Your task to perform on an android device: allow cookies in the chrome app Image 0: 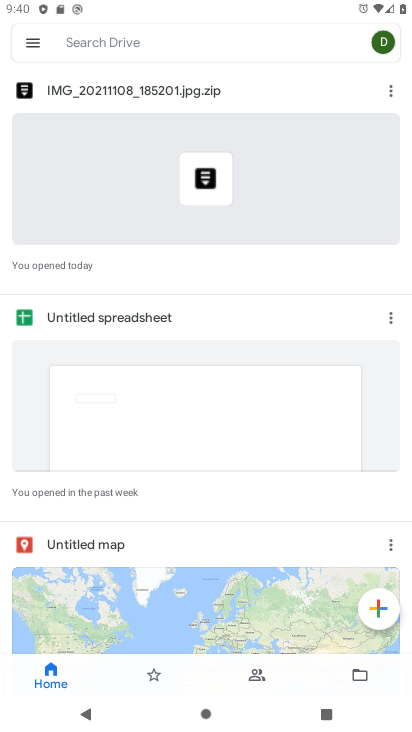
Step 0: press back button
Your task to perform on an android device: allow cookies in the chrome app Image 1: 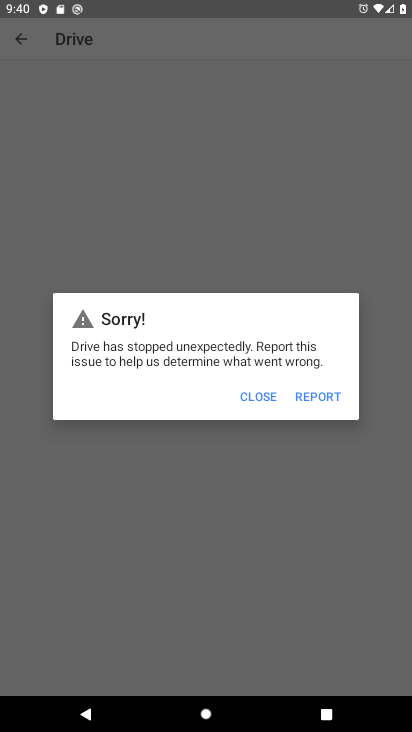
Step 1: press back button
Your task to perform on an android device: allow cookies in the chrome app Image 2: 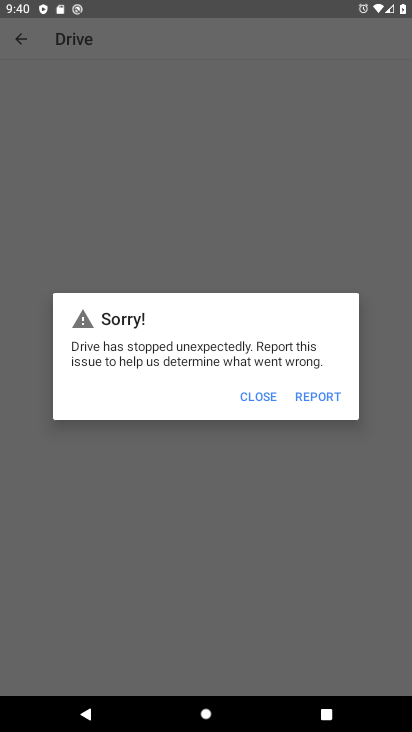
Step 2: press home button
Your task to perform on an android device: allow cookies in the chrome app Image 3: 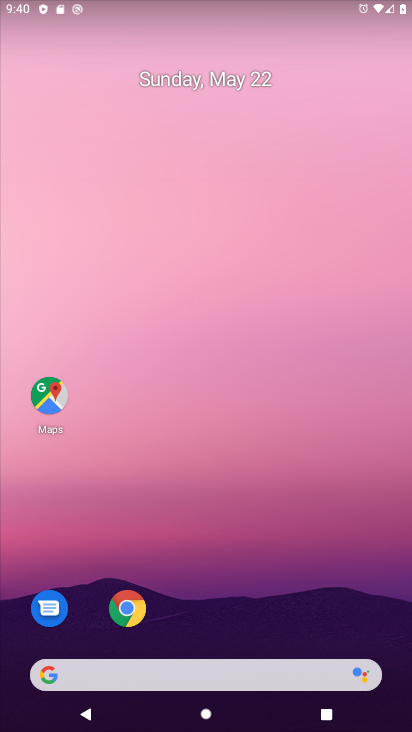
Step 3: drag from (301, 565) to (255, 13)
Your task to perform on an android device: allow cookies in the chrome app Image 4: 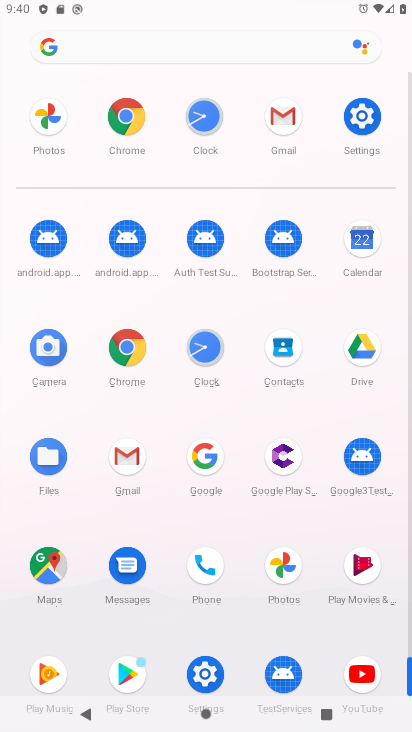
Step 4: click (125, 346)
Your task to perform on an android device: allow cookies in the chrome app Image 5: 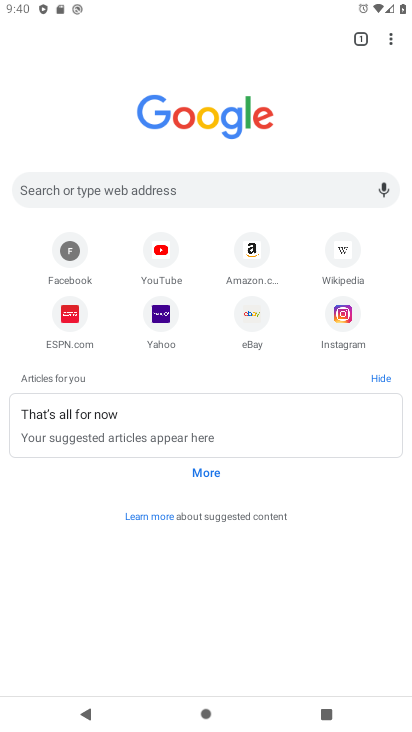
Step 5: drag from (391, 34) to (264, 326)
Your task to perform on an android device: allow cookies in the chrome app Image 6: 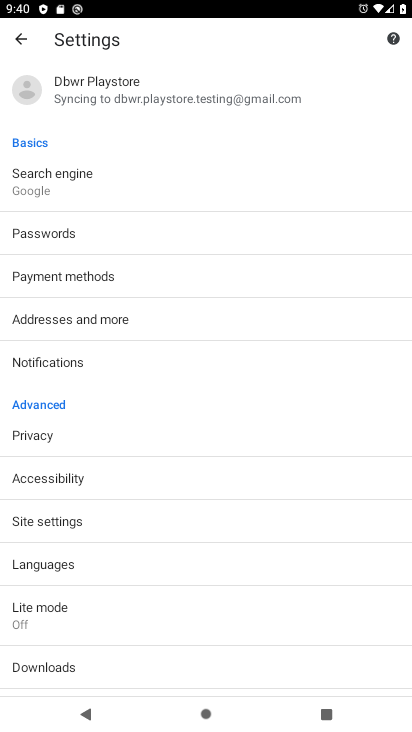
Step 6: drag from (187, 590) to (192, 199)
Your task to perform on an android device: allow cookies in the chrome app Image 7: 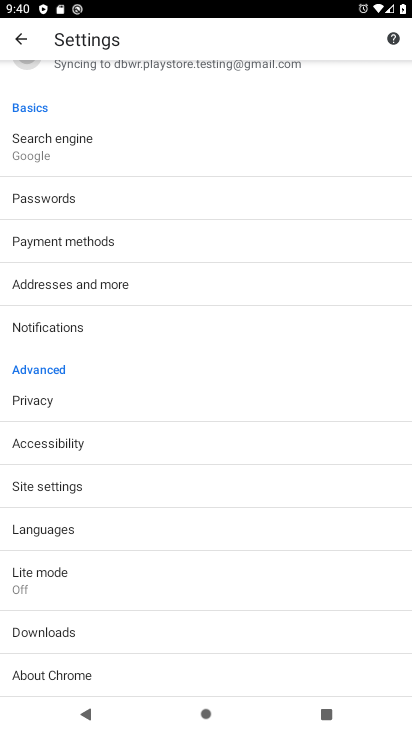
Step 7: click (74, 488)
Your task to perform on an android device: allow cookies in the chrome app Image 8: 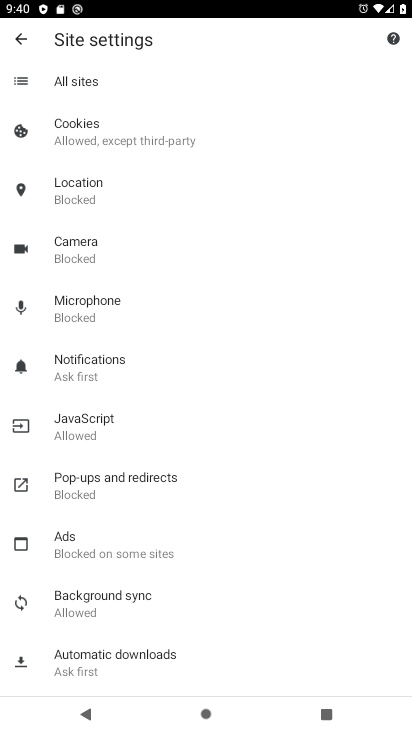
Step 8: click (114, 135)
Your task to perform on an android device: allow cookies in the chrome app Image 9: 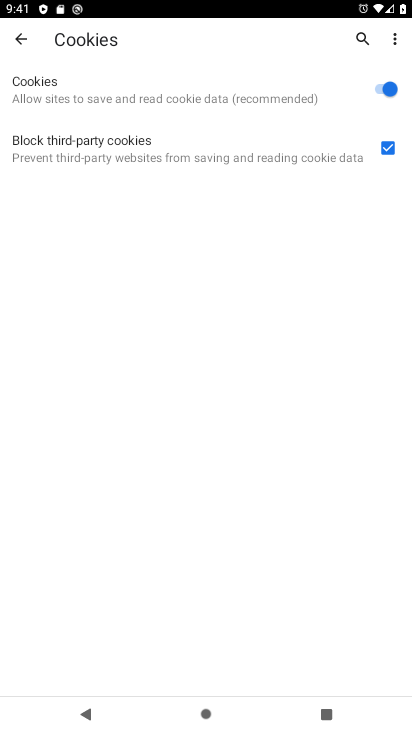
Step 9: task complete